Your task to perform on an android device: Open accessibility settings Image 0: 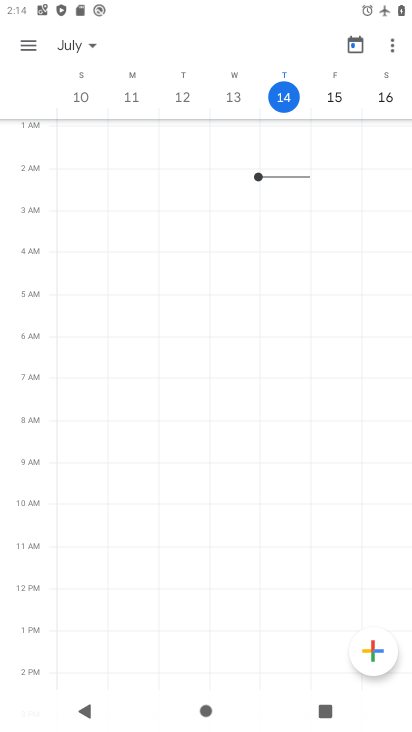
Step 0: press home button
Your task to perform on an android device: Open accessibility settings Image 1: 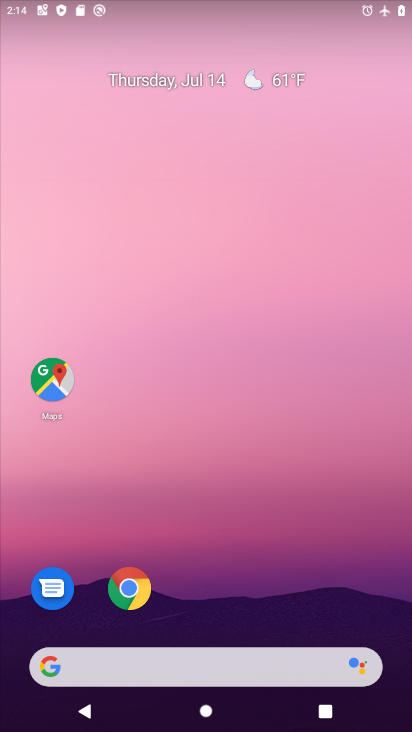
Step 1: drag from (228, 635) to (293, 303)
Your task to perform on an android device: Open accessibility settings Image 2: 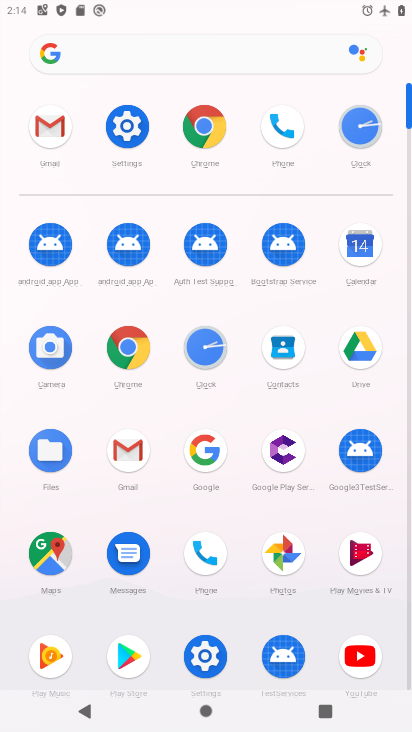
Step 2: click (117, 126)
Your task to perform on an android device: Open accessibility settings Image 3: 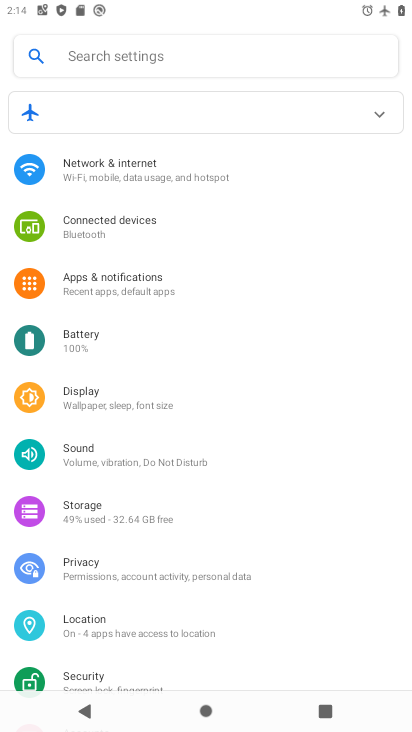
Step 3: drag from (152, 613) to (216, 276)
Your task to perform on an android device: Open accessibility settings Image 4: 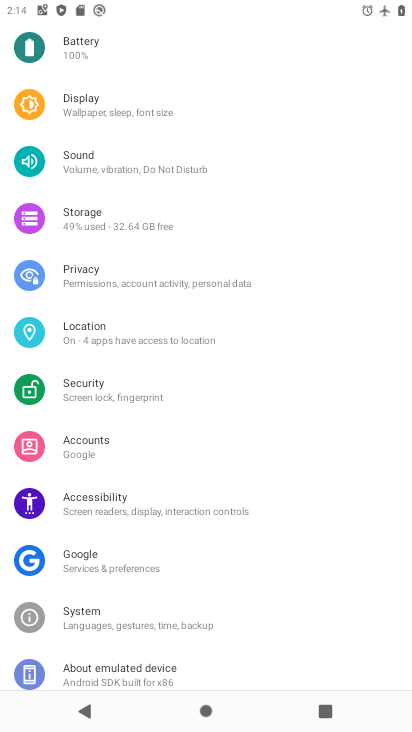
Step 4: click (111, 504)
Your task to perform on an android device: Open accessibility settings Image 5: 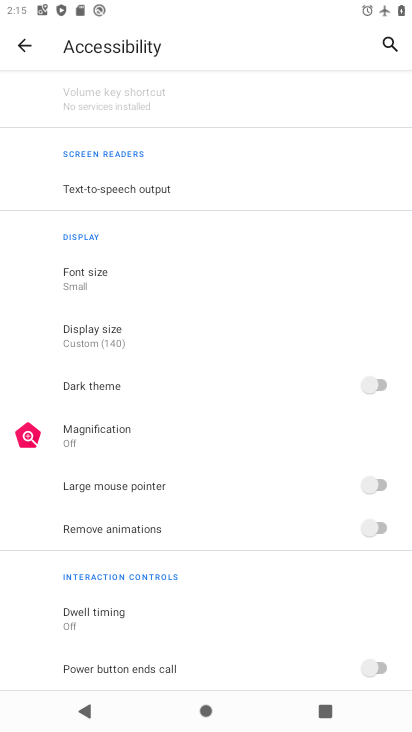
Step 5: task complete